Your task to perform on an android device: Open calendar and show me the first week of next month Image 0: 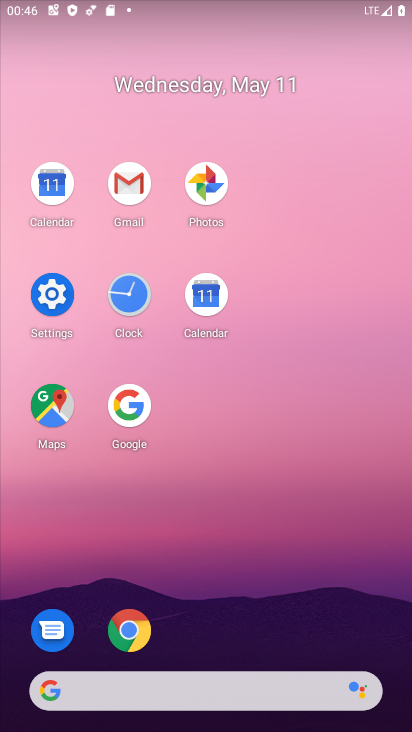
Step 0: click (206, 305)
Your task to perform on an android device: Open calendar and show me the first week of next month Image 1: 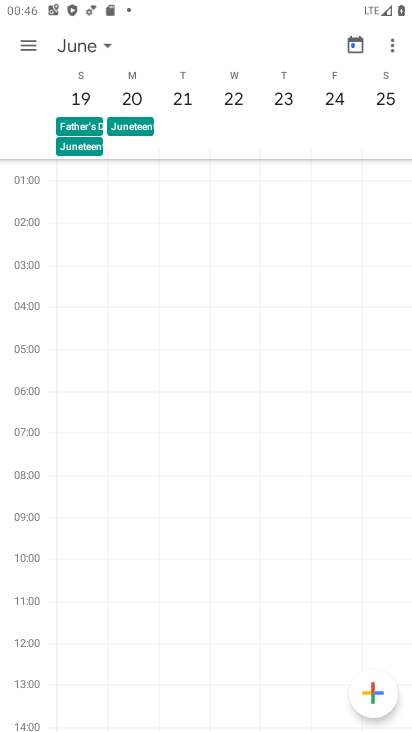
Step 1: click (21, 45)
Your task to perform on an android device: Open calendar and show me the first week of next month Image 2: 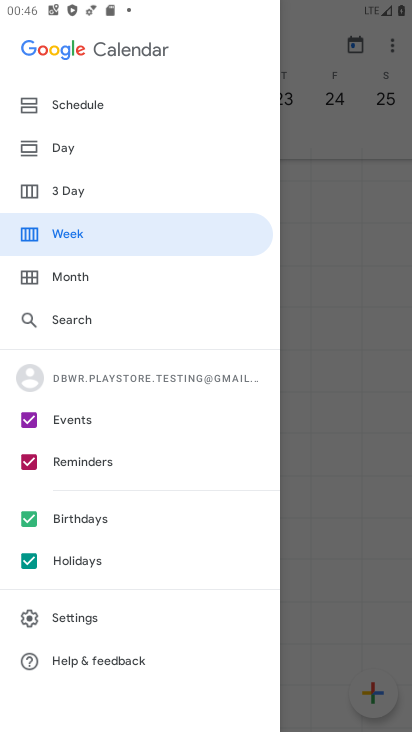
Step 2: click (83, 219)
Your task to perform on an android device: Open calendar and show me the first week of next month Image 3: 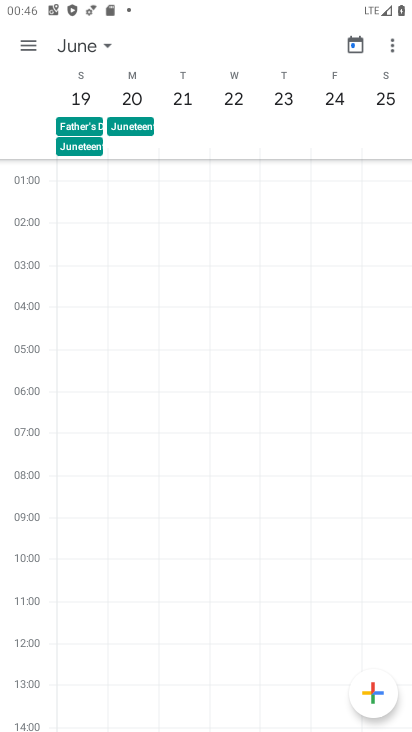
Step 3: task complete